Your task to perform on an android device: open the mobile data screen to see how much data has been used Image 0: 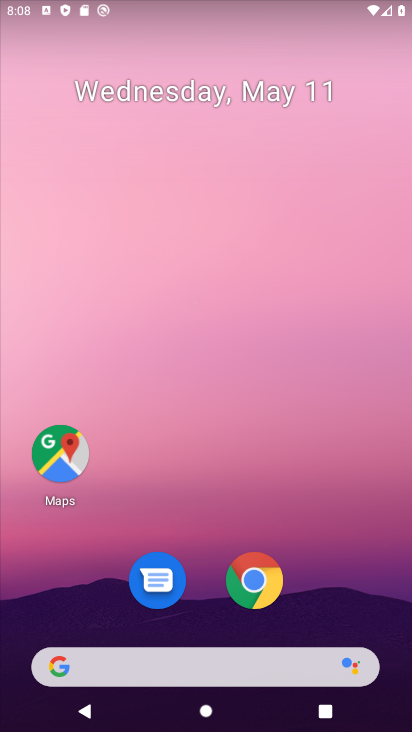
Step 0: press home button
Your task to perform on an android device: open the mobile data screen to see how much data has been used Image 1: 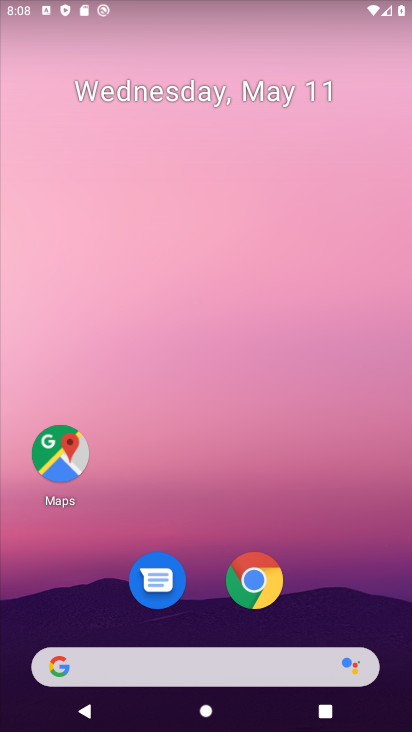
Step 1: drag from (258, 713) to (167, 5)
Your task to perform on an android device: open the mobile data screen to see how much data has been used Image 2: 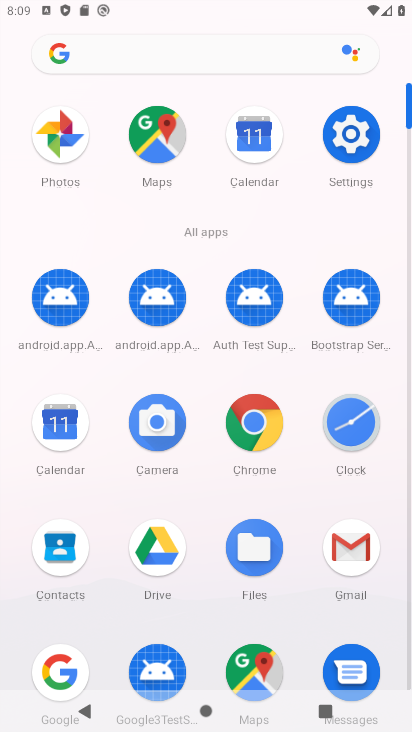
Step 2: click (330, 181)
Your task to perform on an android device: open the mobile data screen to see how much data has been used Image 3: 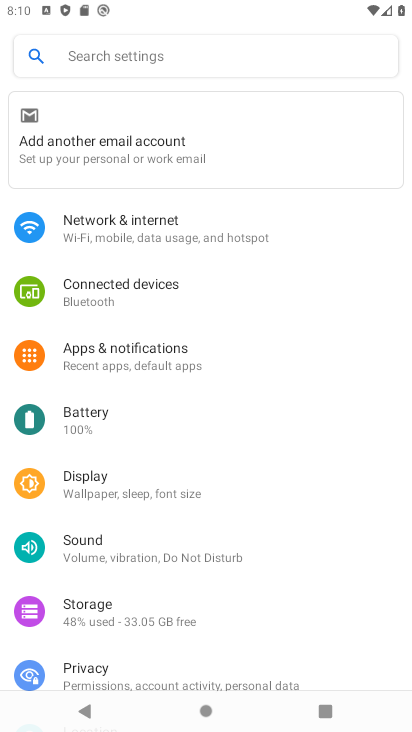
Step 3: click (172, 229)
Your task to perform on an android device: open the mobile data screen to see how much data has been used Image 4: 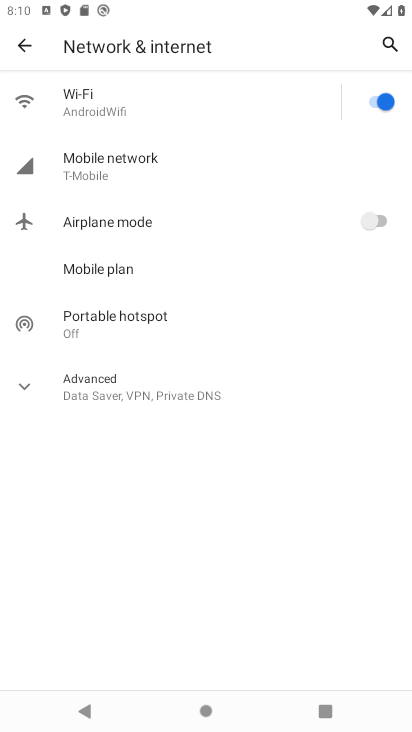
Step 4: click (177, 155)
Your task to perform on an android device: open the mobile data screen to see how much data has been used Image 5: 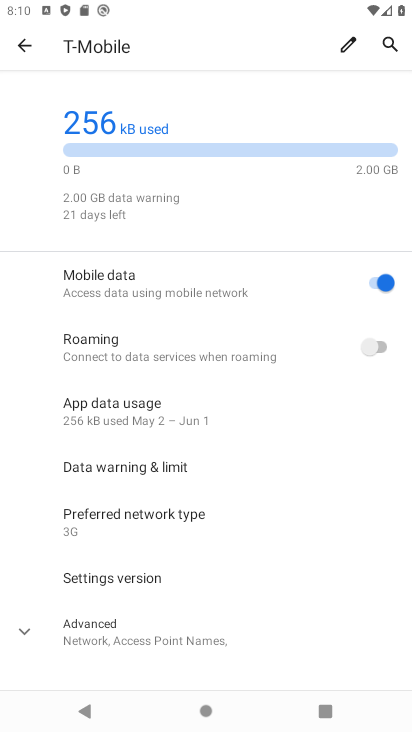
Step 5: task complete